Your task to perform on an android device: add a contact in the contacts app Image 0: 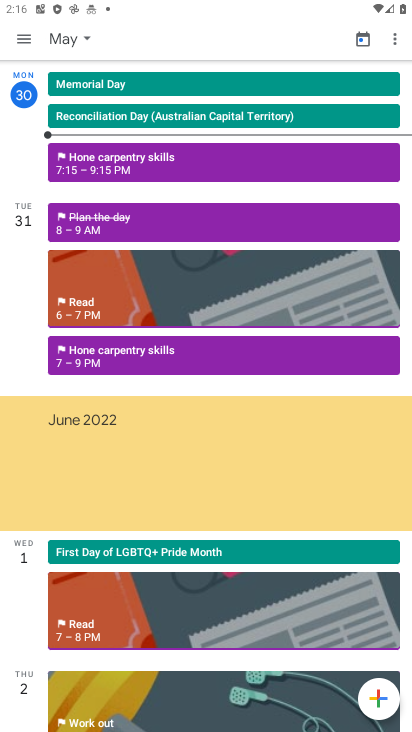
Step 0: task complete